Your task to perform on an android device: Go to Wikipedia Image 0: 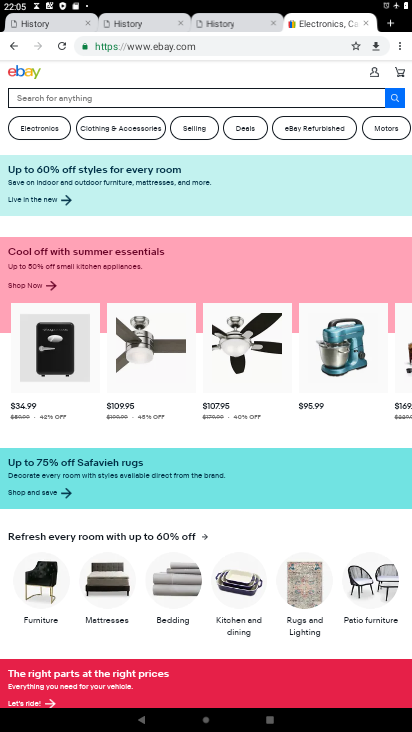
Step 0: press home button
Your task to perform on an android device: Go to Wikipedia Image 1: 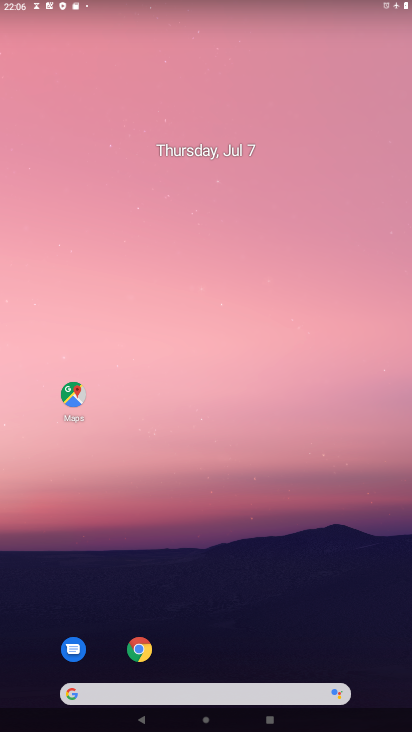
Step 1: click (127, 642)
Your task to perform on an android device: Go to Wikipedia Image 2: 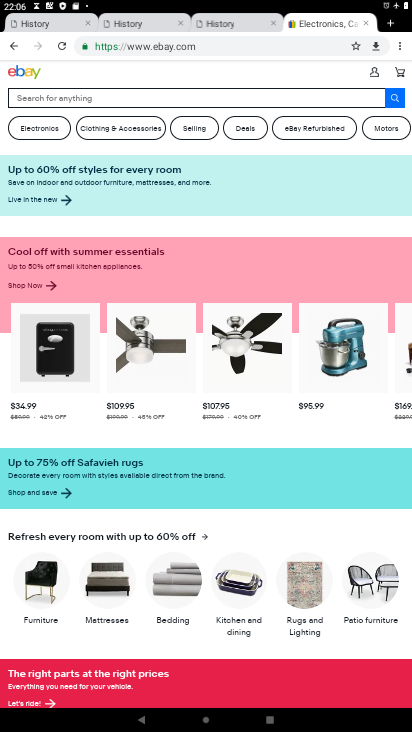
Step 2: click (398, 49)
Your task to perform on an android device: Go to Wikipedia Image 3: 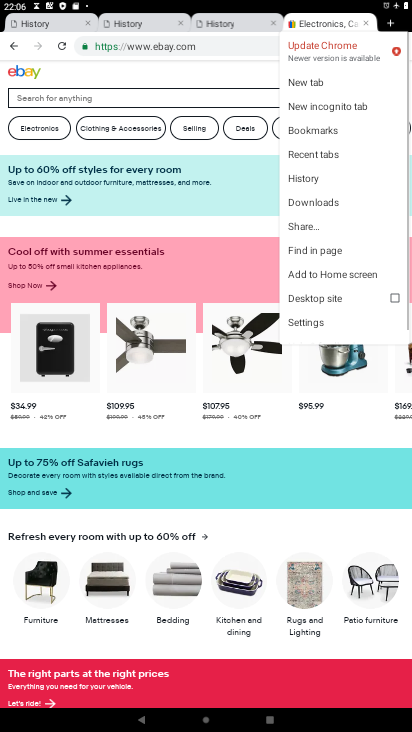
Step 3: click (298, 83)
Your task to perform on an android device: Go to Wikipedia Image 4: 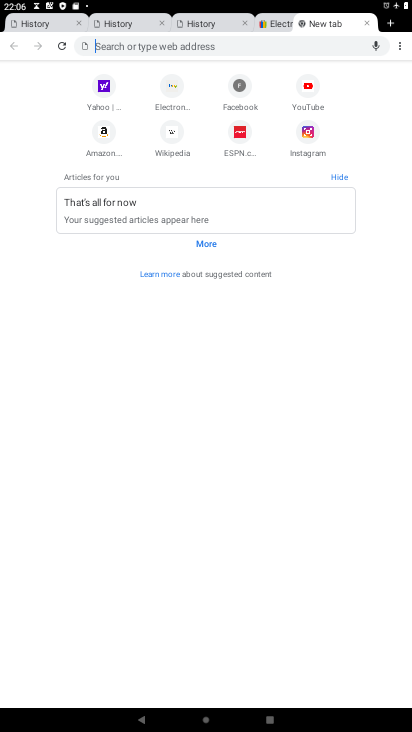
Step 4: click (176, 131)
Your task to perform on an android device: Go to Wikipedia Image 5: 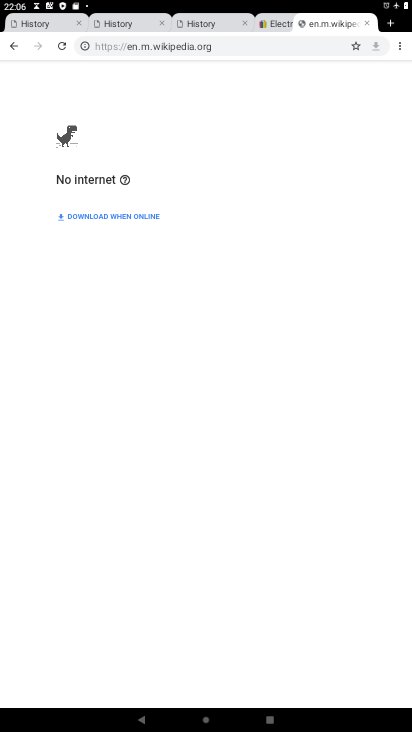
Step 5: task complete